Your task to perform on an android device: Open the Play Movies app and select the watchlist tab. Image 0: 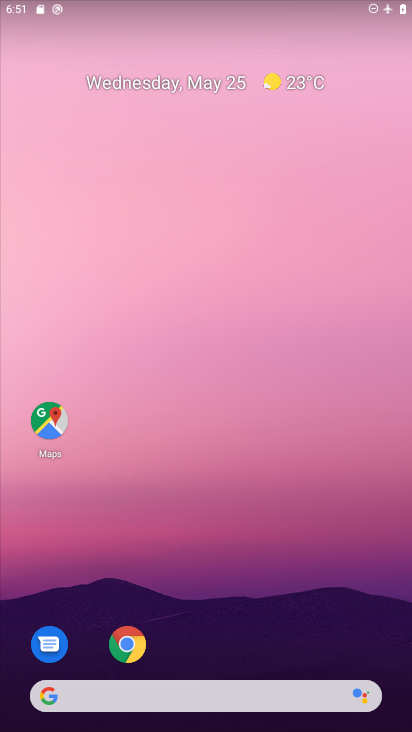
Step 0: drag from (337, 652) to (270, 13)
Your task to perform on an android device: Open the Play Movies app and select the watchlist tab. Image 1: 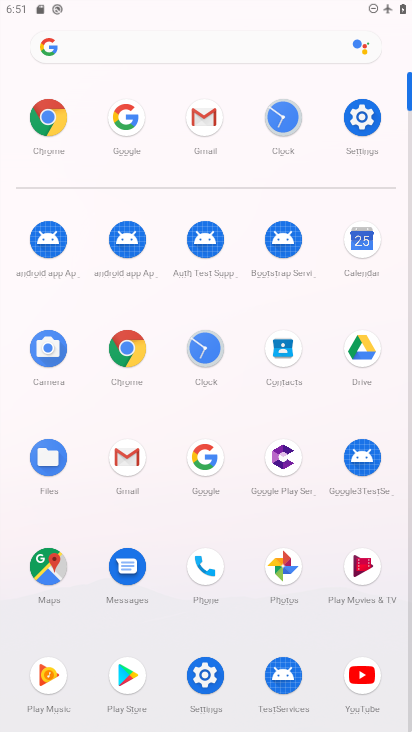
Step 1: click (353, 567)
Your task to perform on an android device: Open the Play Movies app and select the watchlist tab. Image 2: 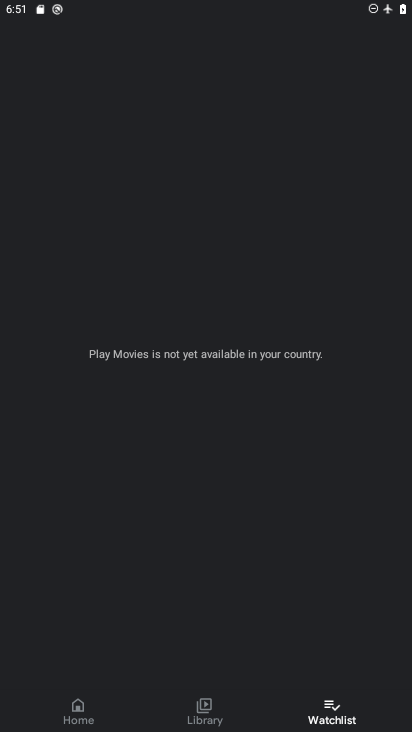
Step 2: task complete